Your task to perform on an android device: add a contact in the contacts app Image 0: 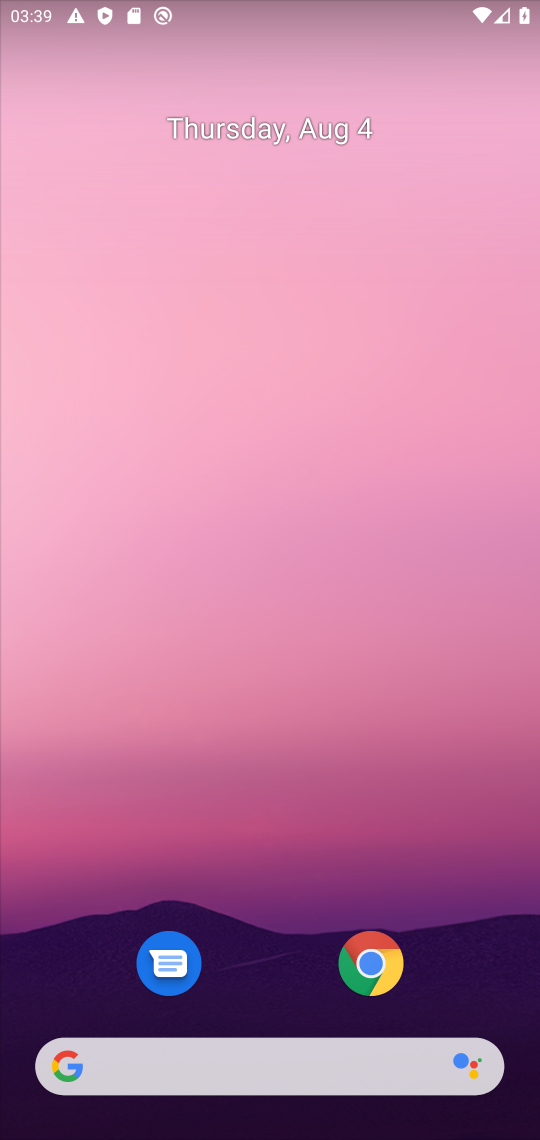
Step 0: drag from (452, 991) to (512, 7)
Your task to perform on an android device: add a contact in the contacts app Image 1: 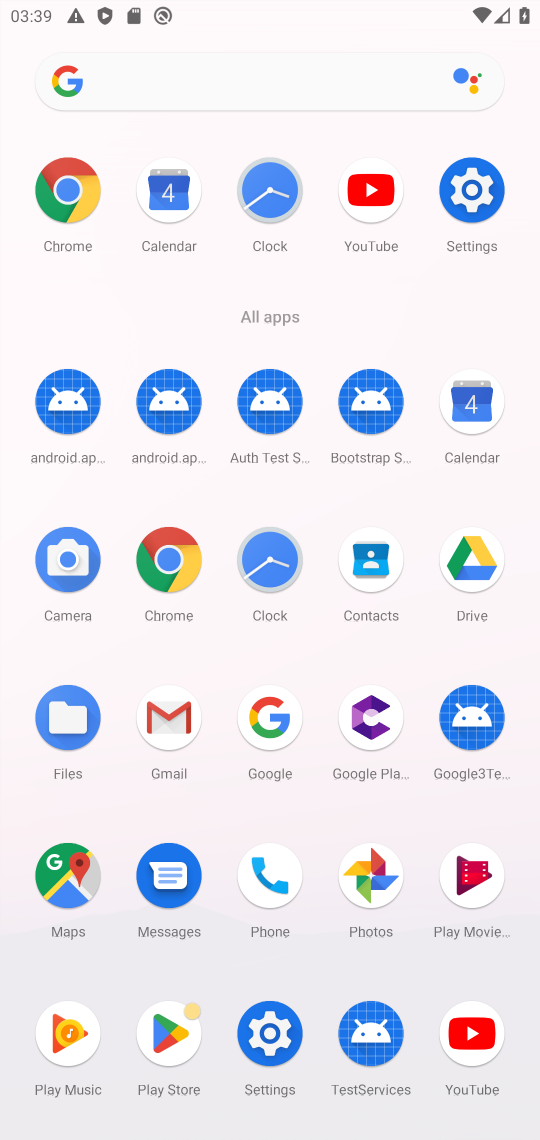
Step 1: click (370, 564)
Your task to perform on an android device: add a contact in the contacts app Image 2: 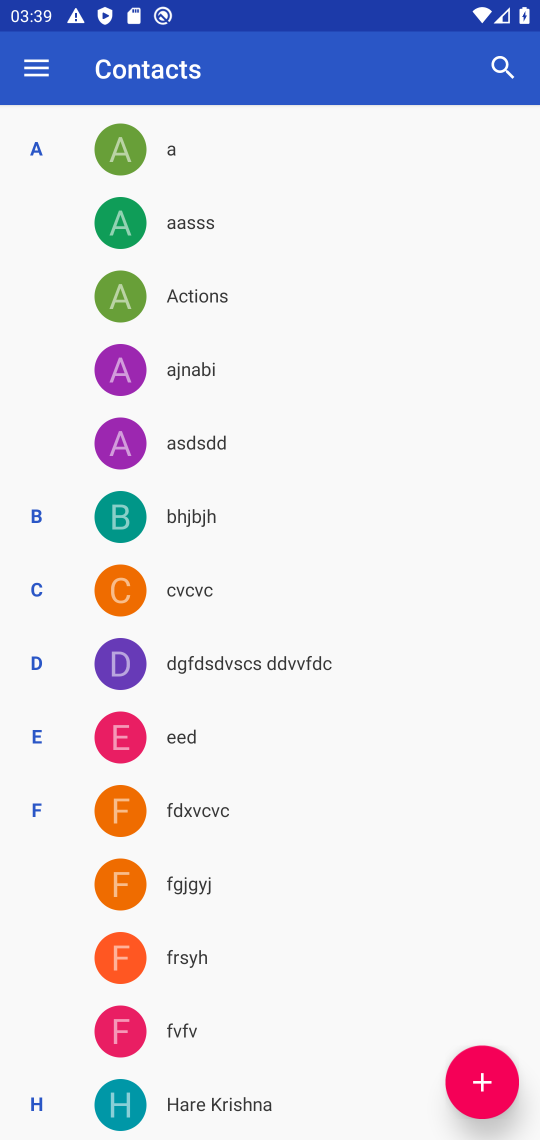
Step 2: click (482, 1088)
Your task to perform on an android device: add a contact in the contacts app Image 3: 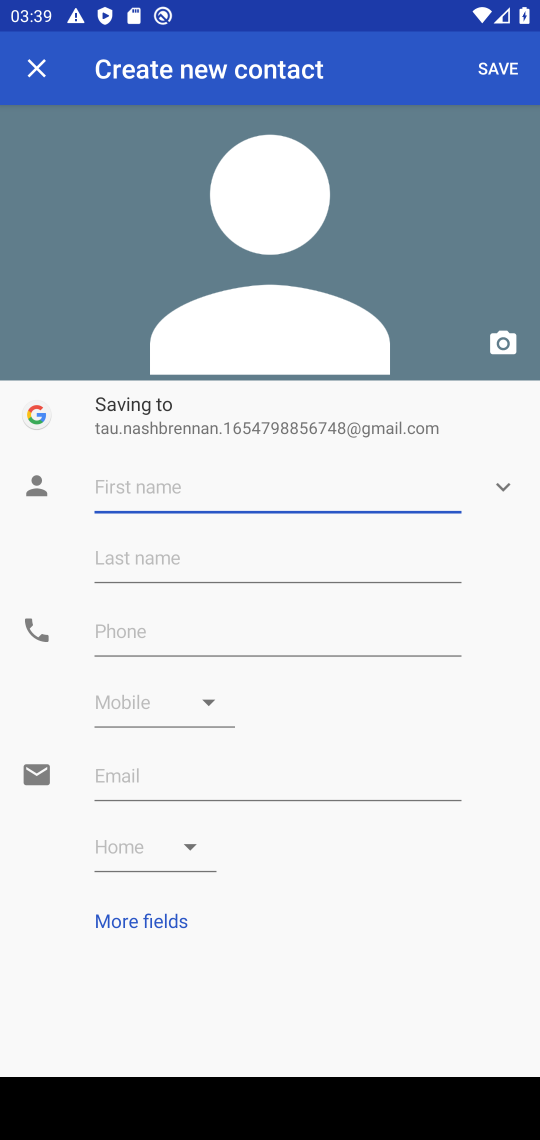
Step 3: click (124, 505)
Your task to perform on an android device: add a contact in the contacts app Image 4: 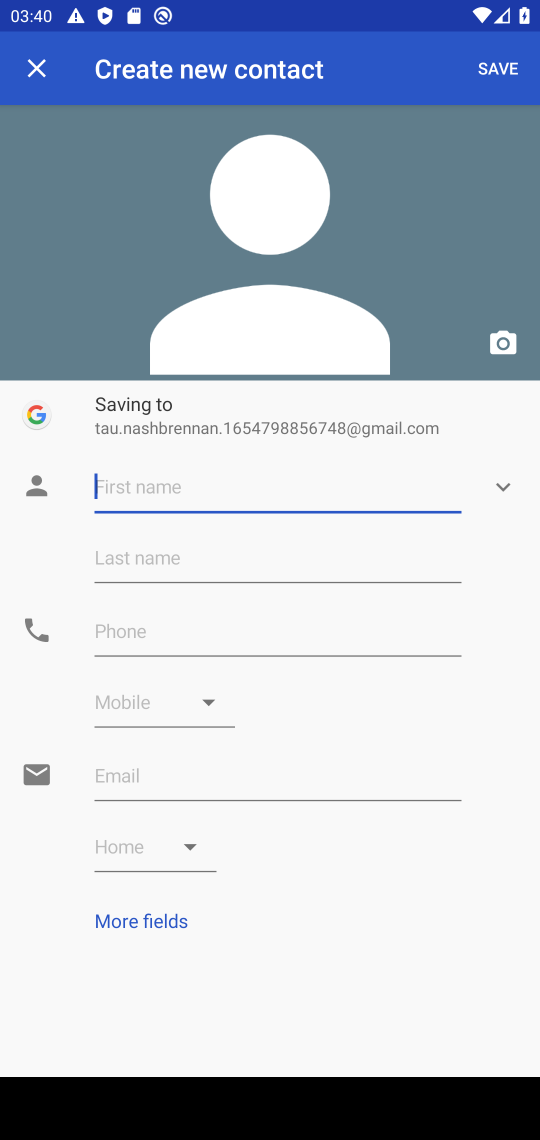
Step 4: type "jimmy"
Your task to perform on an android device: add a contact in the contacts app Image 5: 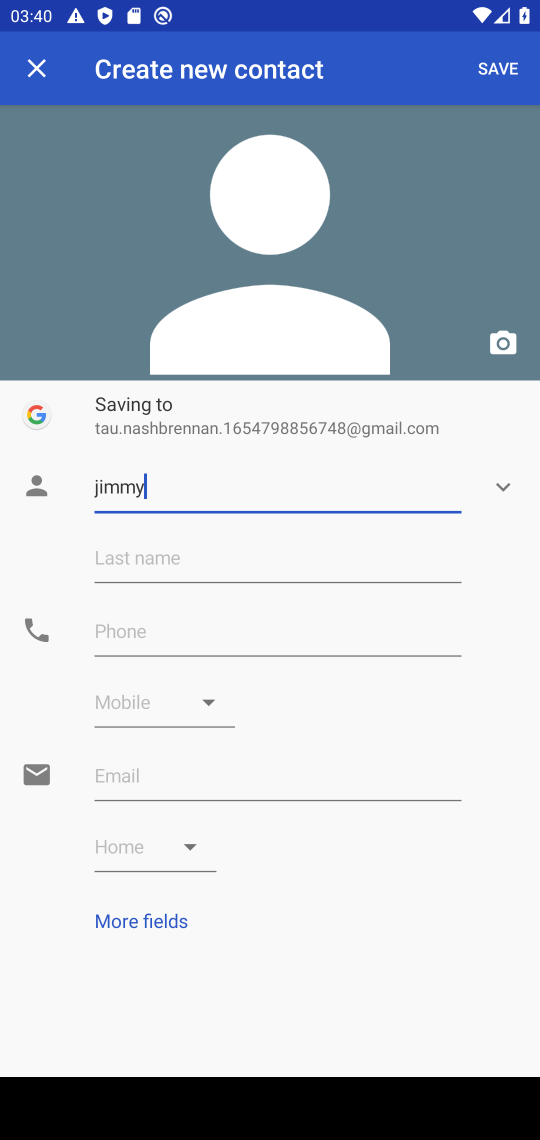
Step 5: click (131, 635)
Your task to perform on an android device: add a contact in the contacts app Image 6: 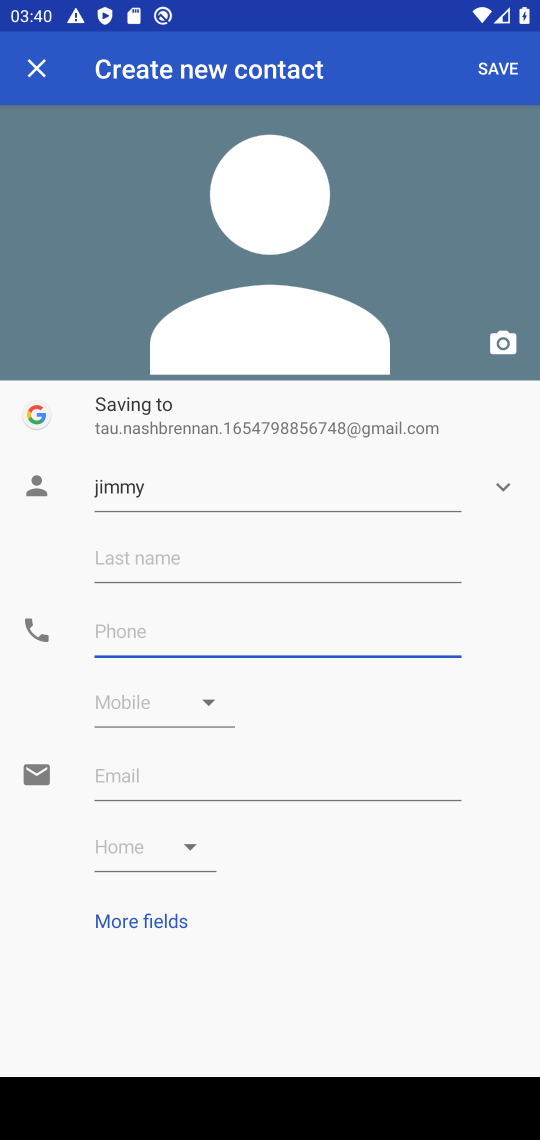
Step 6: click (94, 640)
Your task to perform on an android device: add a contact in the contacts app Image 7: 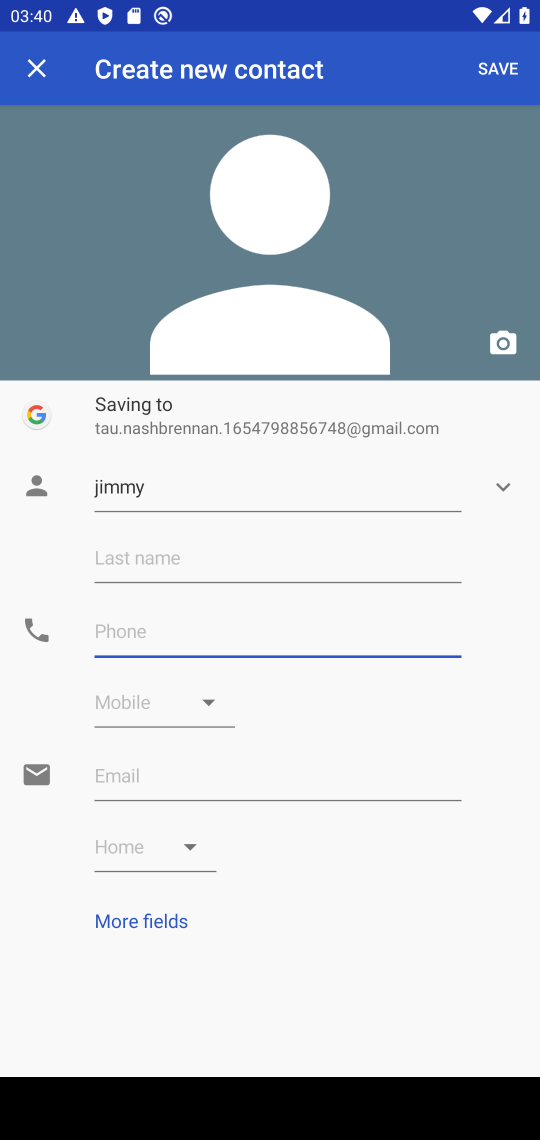
Step 7: type "8765456787"
Your task to perform on an android device: add a contact in the contacts app Image 8: 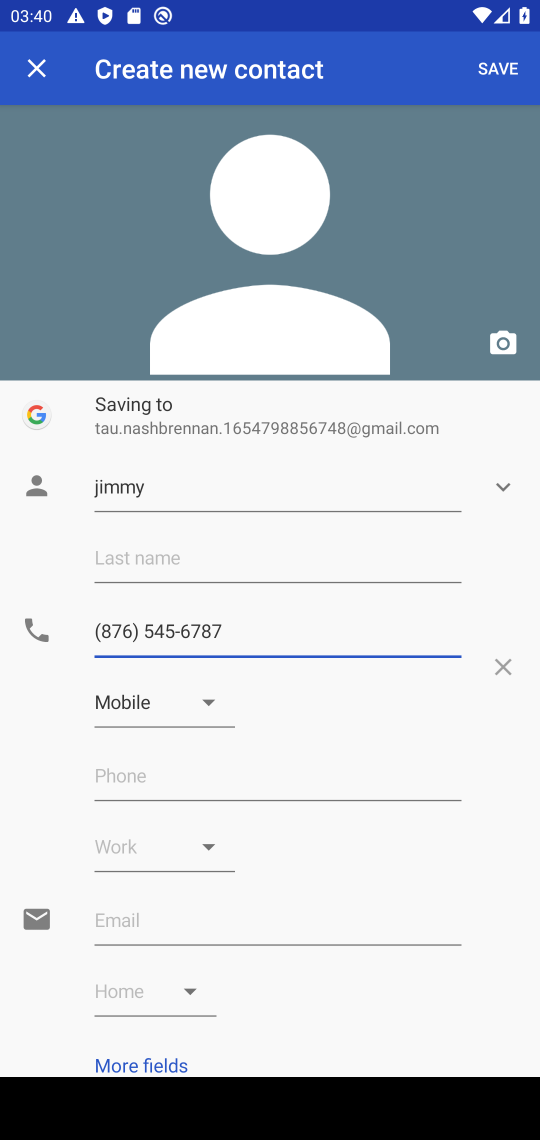
Step 8: task complete